Your task to perform on an android device: Open the calendar and show me this week's events Image 0: 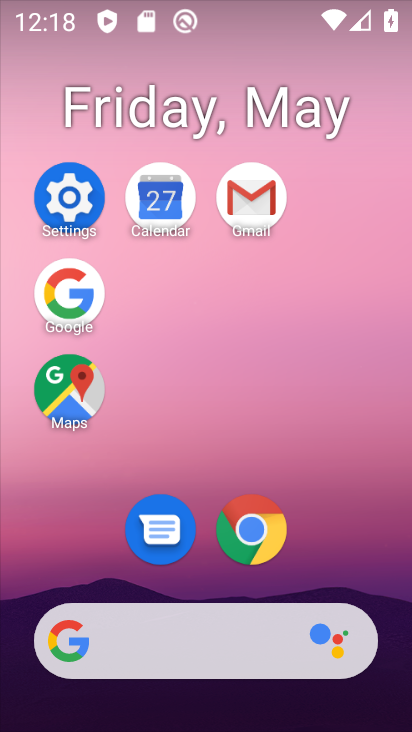
Step 0: click (172, 205)
Your task to perform on an android device: Open the calendar and show me this week's events Image 1: 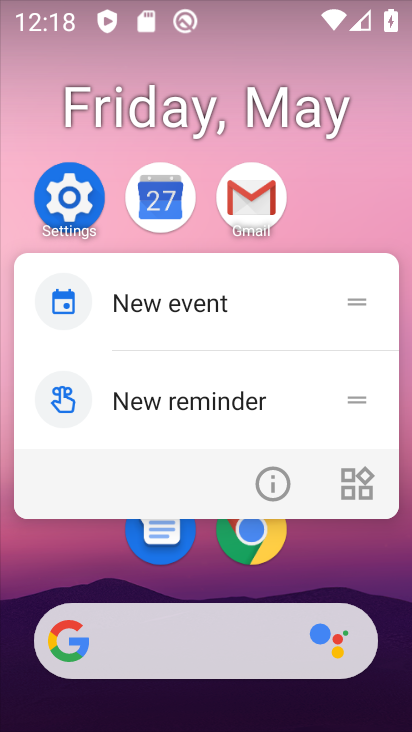
Step 1: click (172, 205)
Your task to perform on an android device: Open the calendar and show me this week's events Image 2: 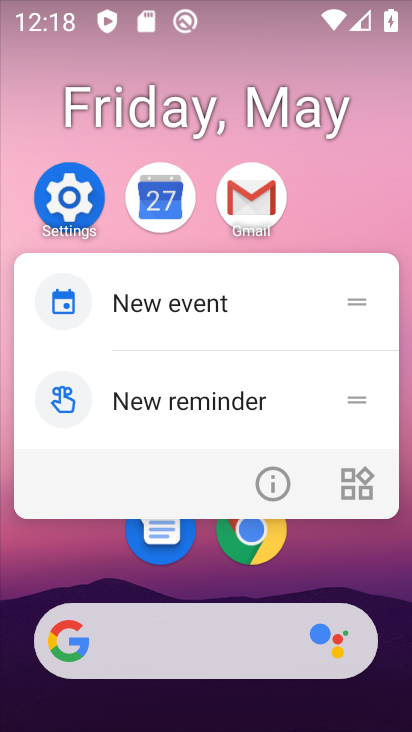
Step 2: click (172, 205)
Your task to perform on an android device: Open the calendar and show me this week's events Image 3: 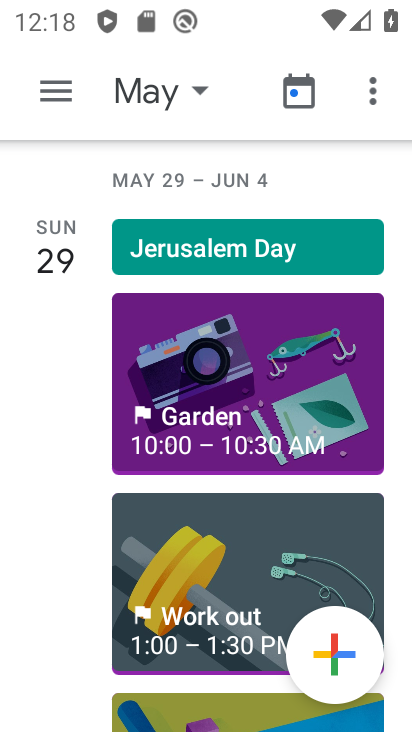
Step 3: click (63, 78)
Your task to perform on an android device: Open the calendar and show me this week's events Image 4: 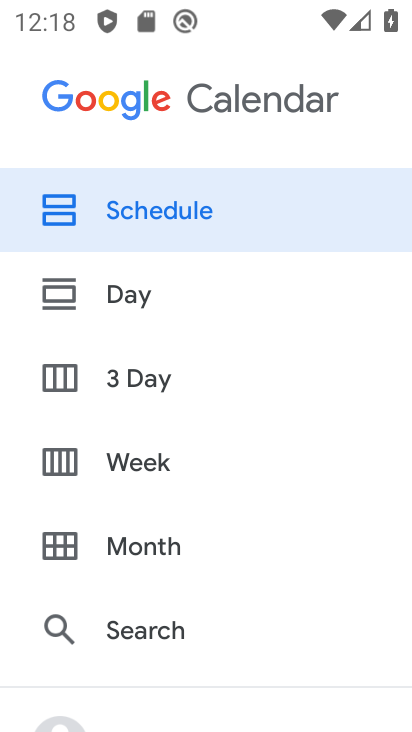
Step 4: click (170, 474)
Your task to perform on an android device: Open the calendar and show me this week's events Image 5: 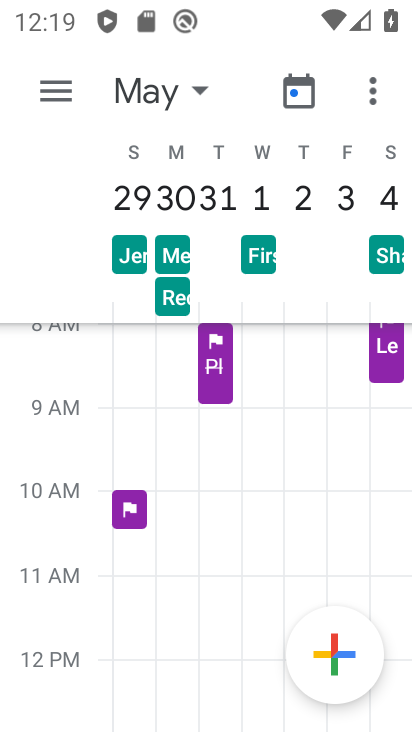
Step 5: task complete